Your task to perform on an android device: turn off translation in the chrome app Image 0: 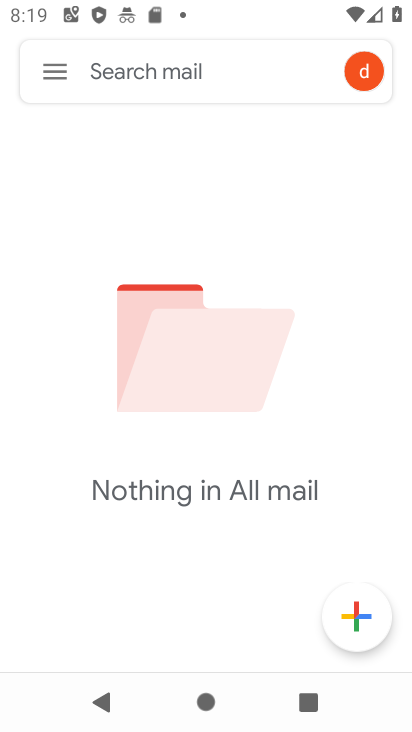
Step 0: press home button
Your task to perform on an android device: turn off translation in the chrome app Image 1: 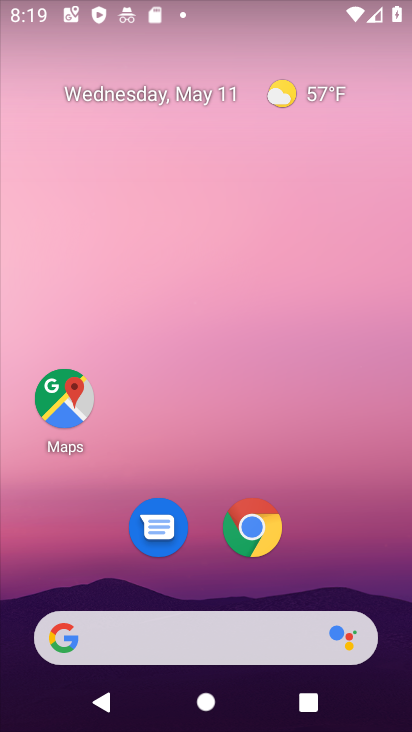
Step 1: click (260, 523)
Your task to perform on an android device: turn off translation in the chrome app Image 2: 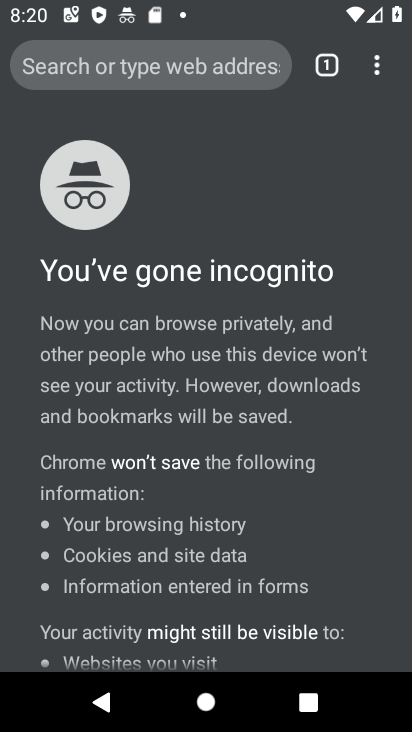
Step 2: click (376, 72)
Your task to perform on an android device: turn off translation in the chrome app Image 3: 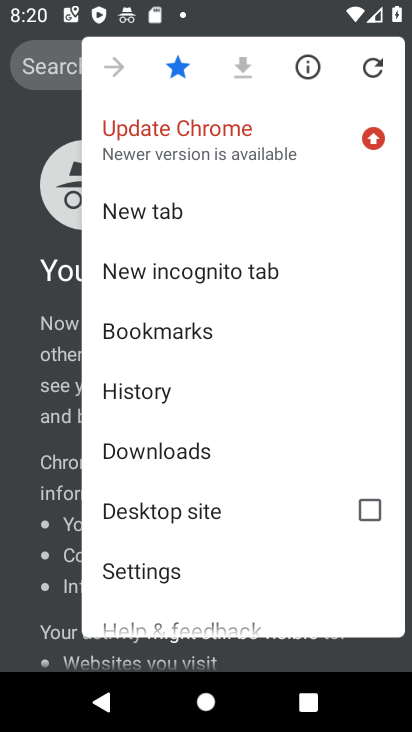
Step 3: drag from (170, 335) to (181, 217)
Your task to perform on an android device: turn off translation in the chrome app Image 4: 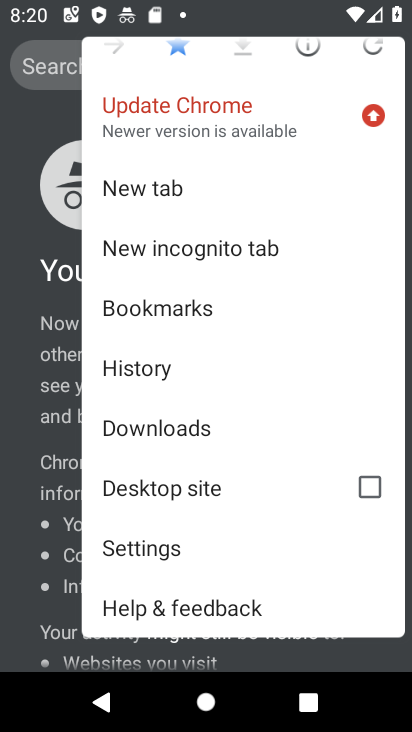
Step 4: click (140, 552)
Your task to perform on an android device: turn off translation in the chrome app Image 5: 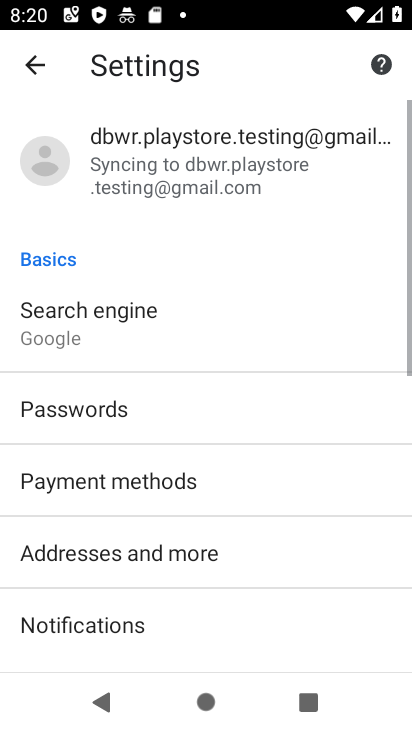
Step 5: drag from (201, 475) to (205, 123)
Your task to perform on an android device: turn off translation in the chrome app Image 6: 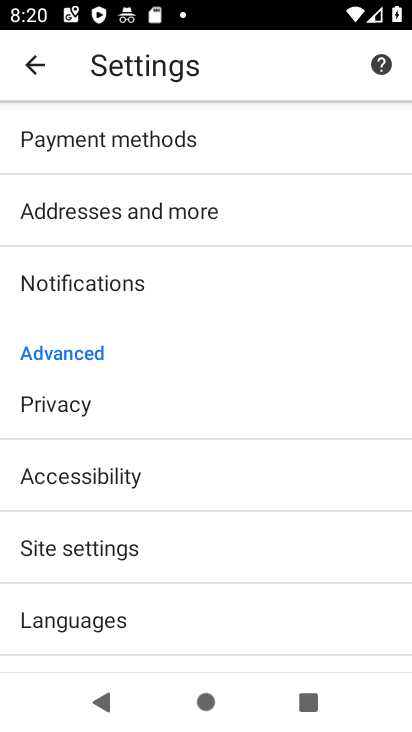
Step 6: click (103, 630)
Your task to perform on an android device: turn off translation in the chrome app Image 7: 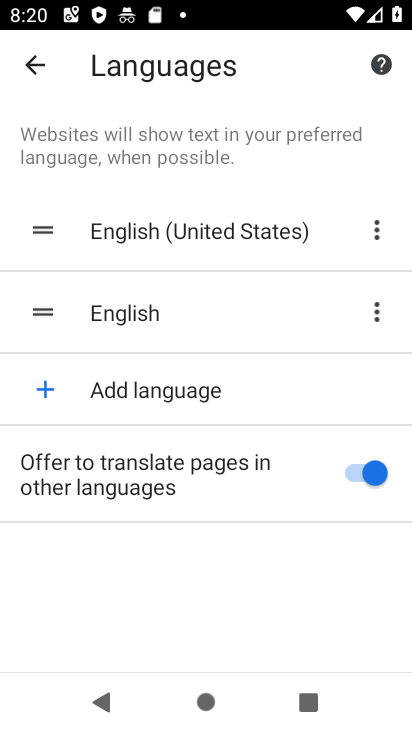
Step 7: click (364, 462)
Your task to perform on an android device: turn off translation in the chrome app Image 8: 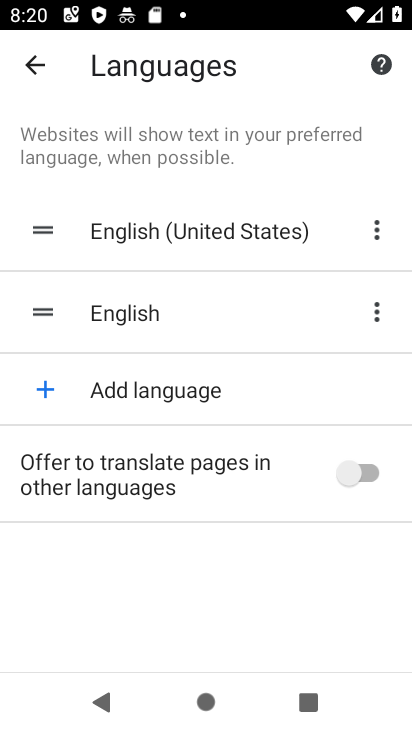
Step 8: task complete